Your task to perform on an android device: Check the weather Image 0: 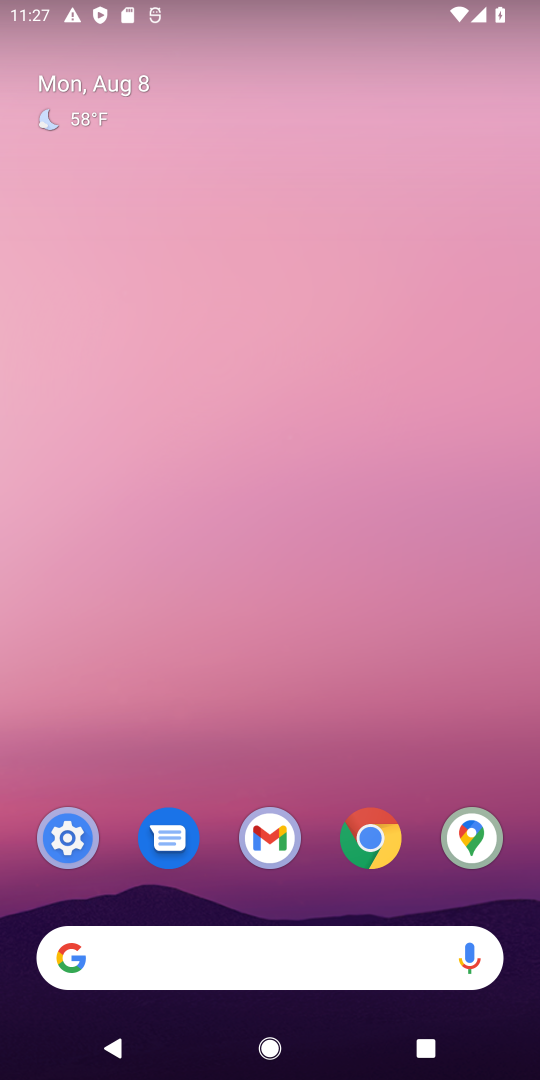
Step 0: click (61, 959)
Your task to perform on an android device: Check the weather Image 1: 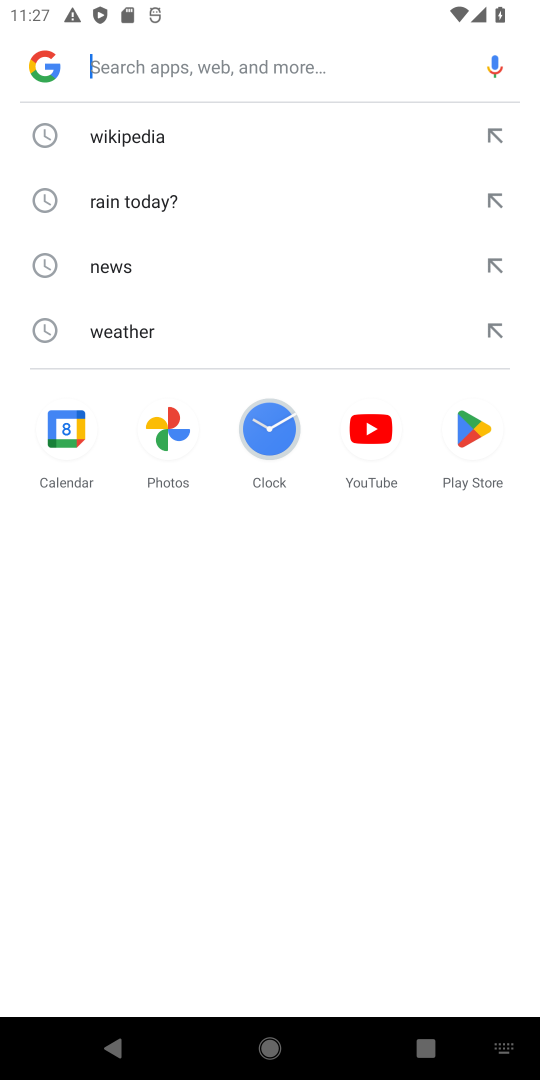
Step 1: click (131, 325)
Your task to perform on an android device: Check the weather Image 2: 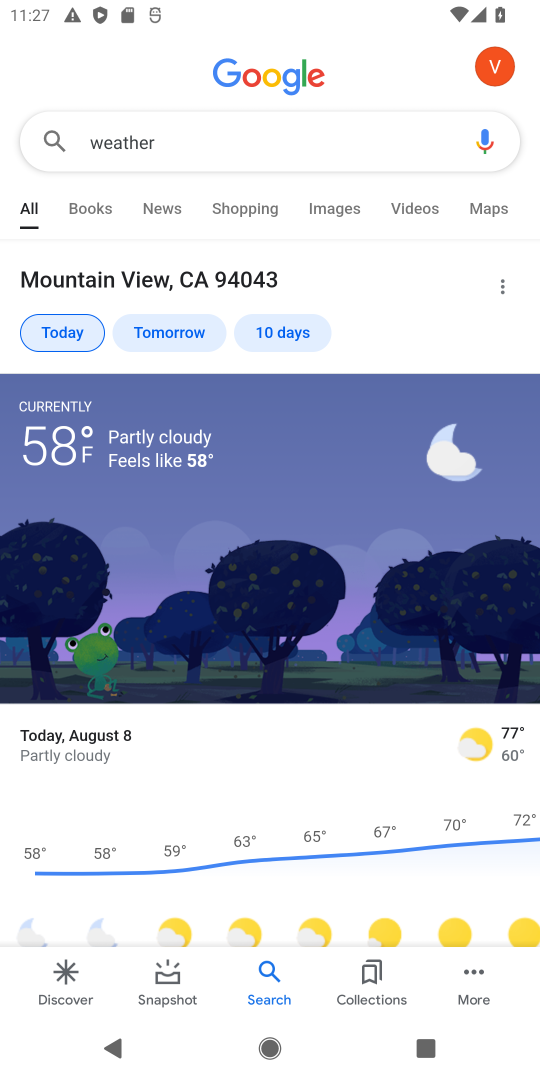
Step 2: task complete